Your task to perform on an android device: Show me productivity apps on the Play Store Image 0: 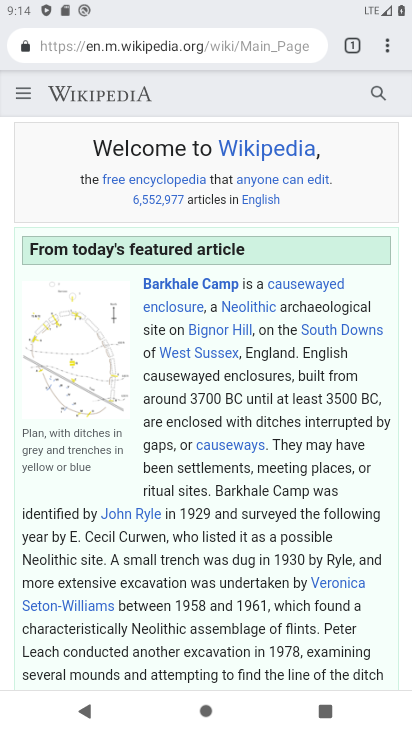
Step 0: press home button
Your task to perform on an android device: Show me productivity apps on the Play Store Image 1: 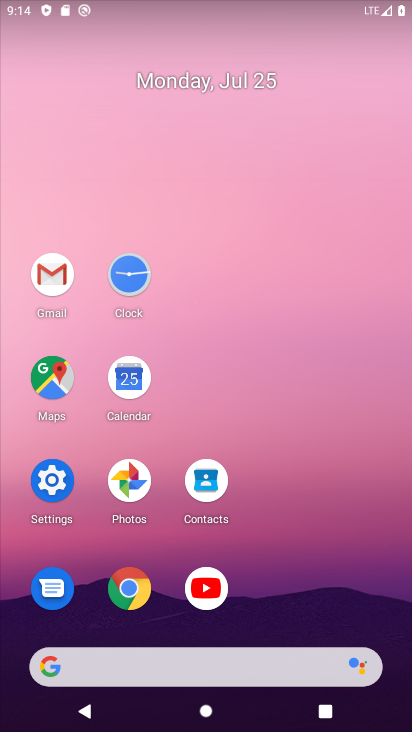
Step 1: drag from (292, 572) to (181, 90)
Your task to perform on an android device: Show me productivity apps on the Play Store Image 2: 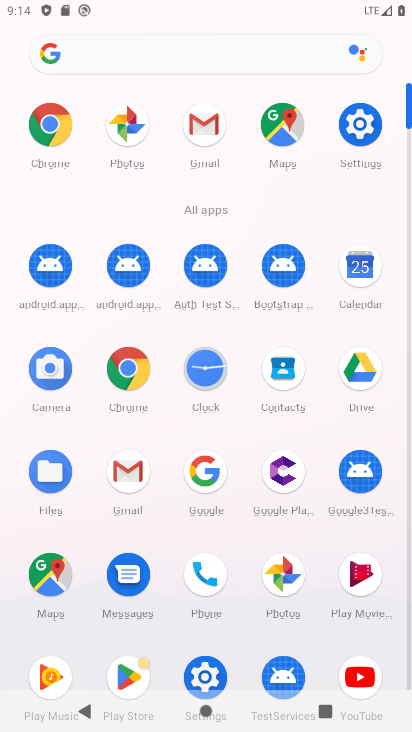
Step 2: click (115, 679)
Your task to perform on an android device: Show me productivity apps on the Play Store Image 3: 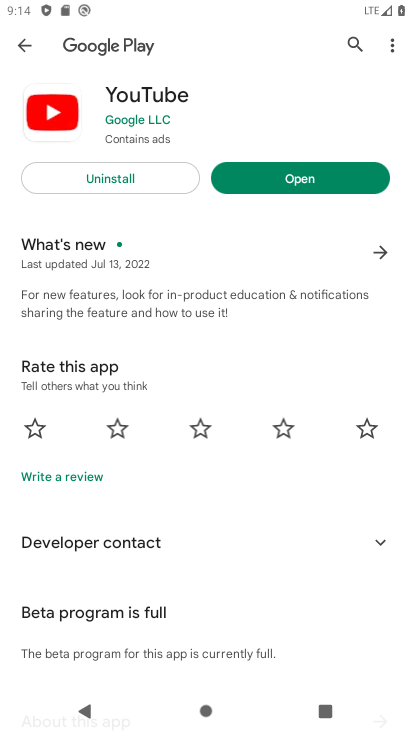
Step 3: click (20, 47)
Your task to perform on an android device: Show me productivity apps on the Play Store Image 4: 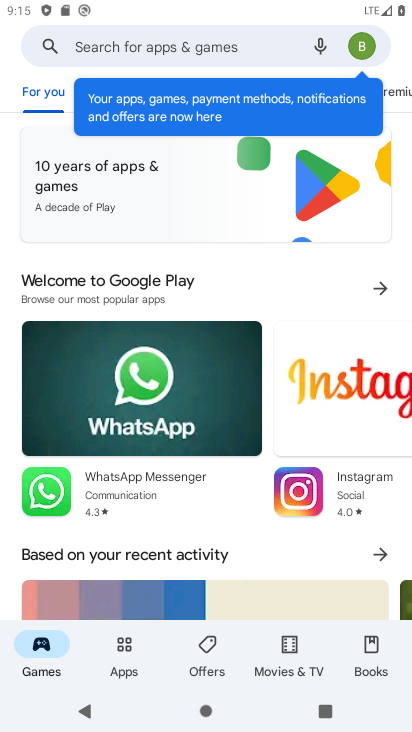
Step 4: click (132, 648)
Your task to perform on an android device: Show me productivity apps on the Play Store Image 5: 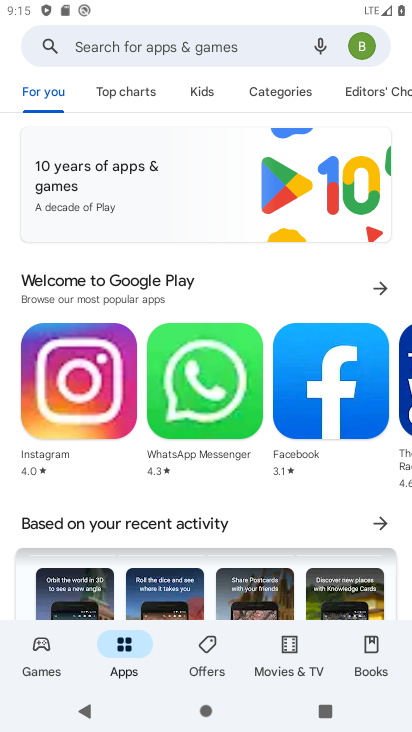
Step 5: task complete